Your task to perform on an android device: What's the weather going to be tomorrow? Image 0: 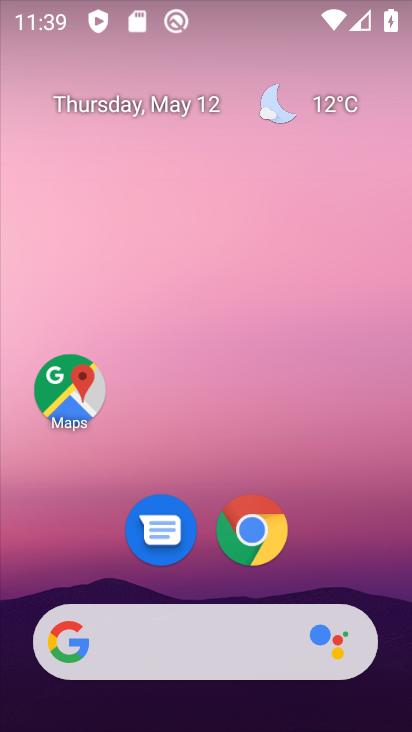
Step 0: drag from (355, 582) to (313, 308)
Your task to perform on an android device: What's the weather going to be tomorrow? Image 1: 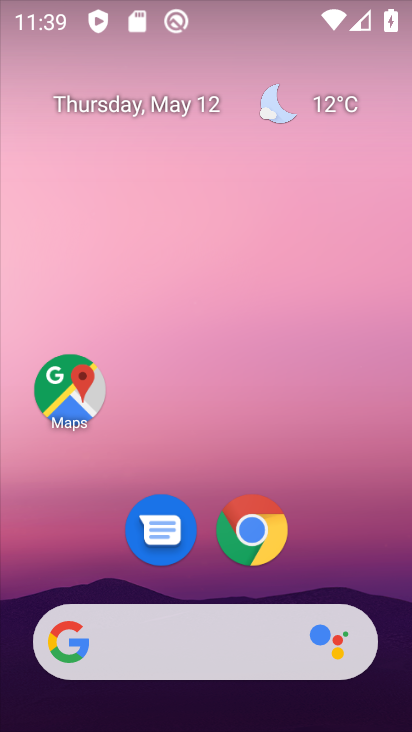
Step 1: click (337, 116)
Your task to perform on an android device: What's the weather going to be tomorrow? Image 2: 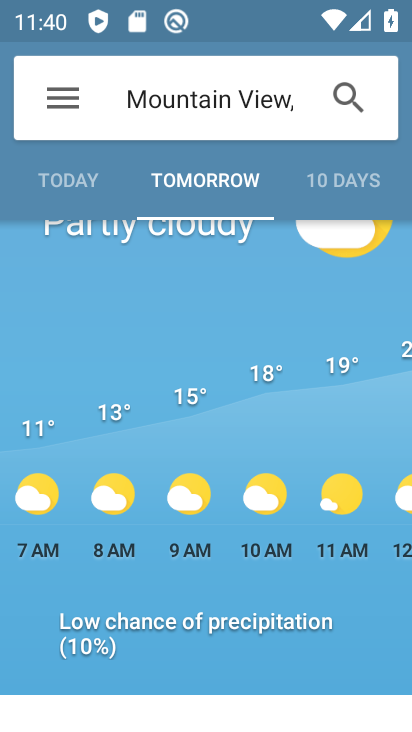
Step 2: task complete